Your task to perform on an android device: empty trash in the gmail app Image 0: 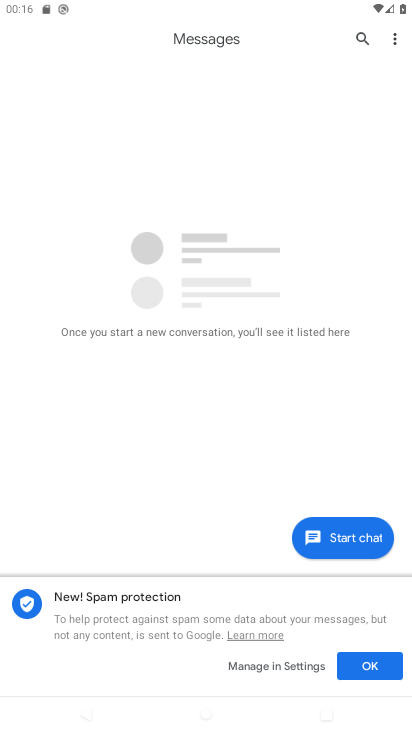
Step 0: drag from (273, 605) to (253, 118)
Your task to perform on an android device: empty trash in the gmail app Image 1: 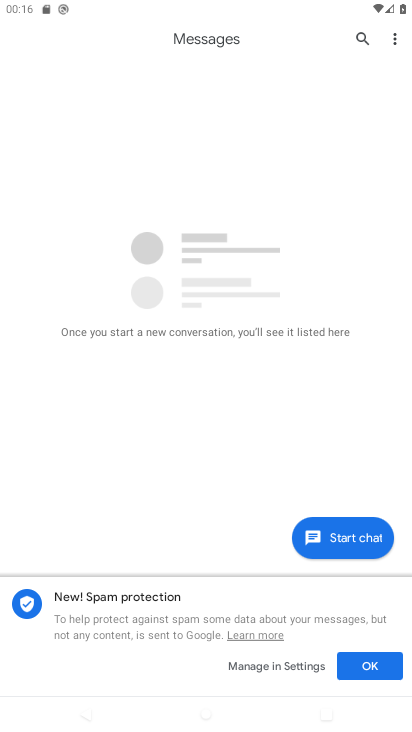
Step 1: press home button
Your task to perform on an android device: empty trash in the gmail app Image 2: 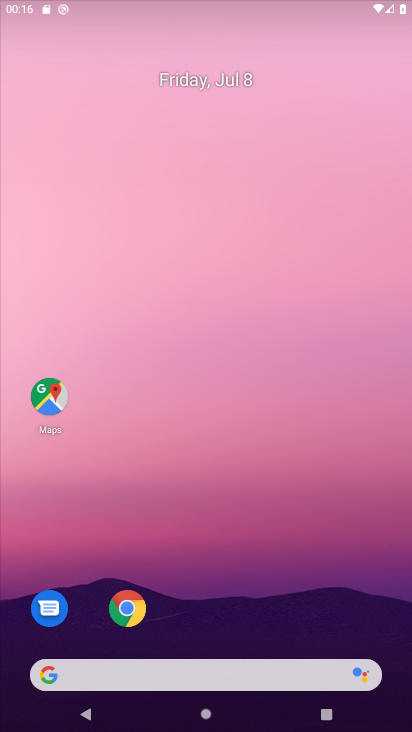
Step 2: drag from (256, 618) to (229, 129)
Your task to perform on an android device: empty trash in the gmail app Image 3: 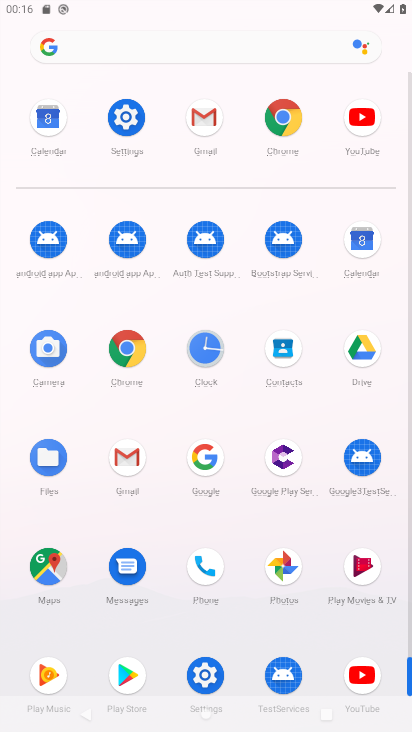
Step 3: click (201, 122)
Your task to perform on an android device: empty trash in the gmail app Image 4: 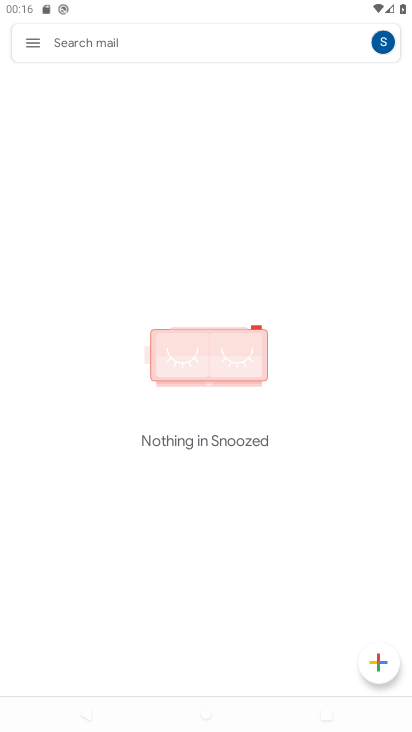
Step 4: click (34, 46)
Your task to perform on an android device: empty trash in the gmail app Image 5: 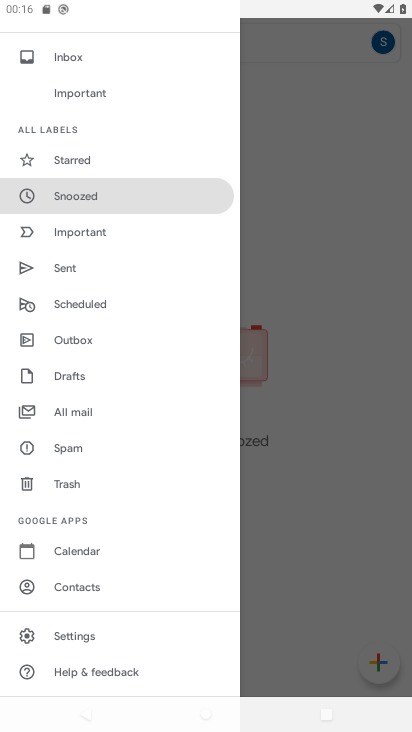
Step 5: click (90, 479)
Your task to perform on an android device: empty trash in the gmail app Image 6: 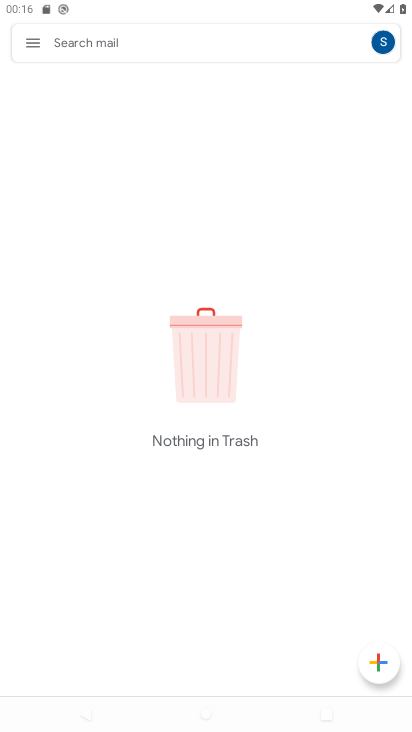
Step 6: task complete